Your task to perform on an android device: Go to Android settings Image 0: 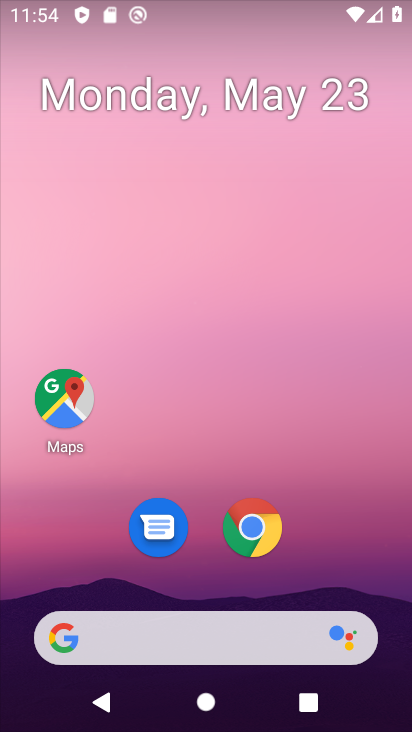
Step 0: press home button
Your task to perform on an android device: Go to Android settings Image 1: 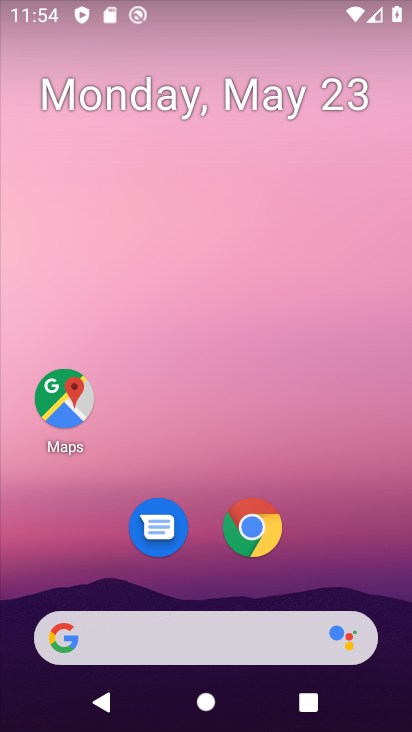
Step 1: drag from (158, 629) to (266, 263)
Your task to perform on an android device: Go to Android settings Image 2: 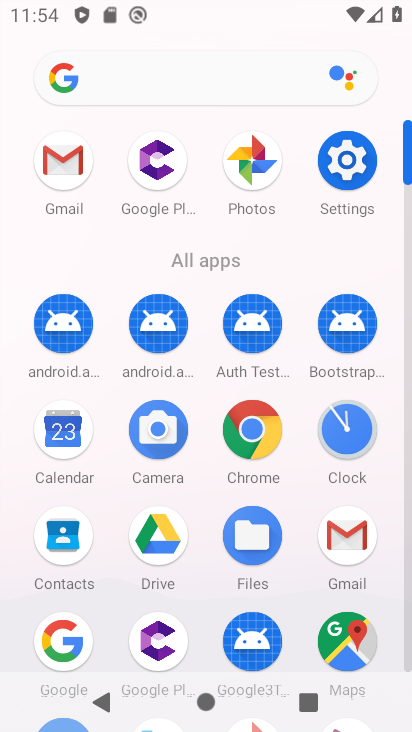
Step 2: click (352, 162)
Your task to perform on an android device: Go to Android settings Image 3: 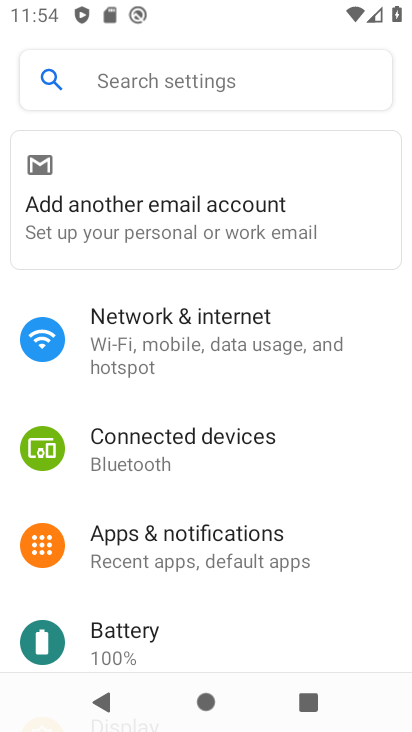
Step 3: click (343, 207)
Your task to perform on an android device: Go to Android settings Image 4: 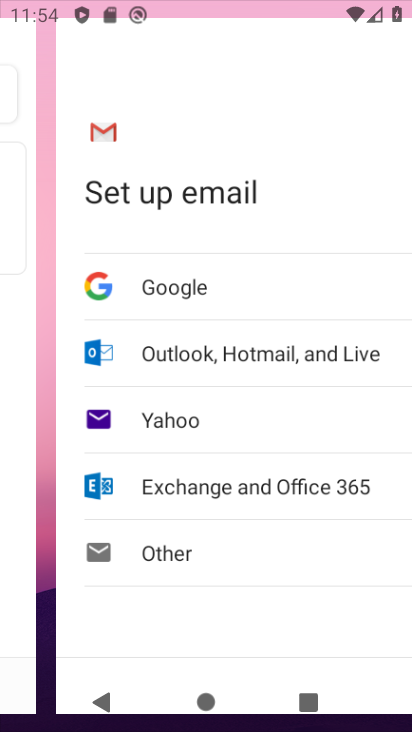
Step 4: task complete